Your task to perform on an android device: star an email in the gmail app Image 0: 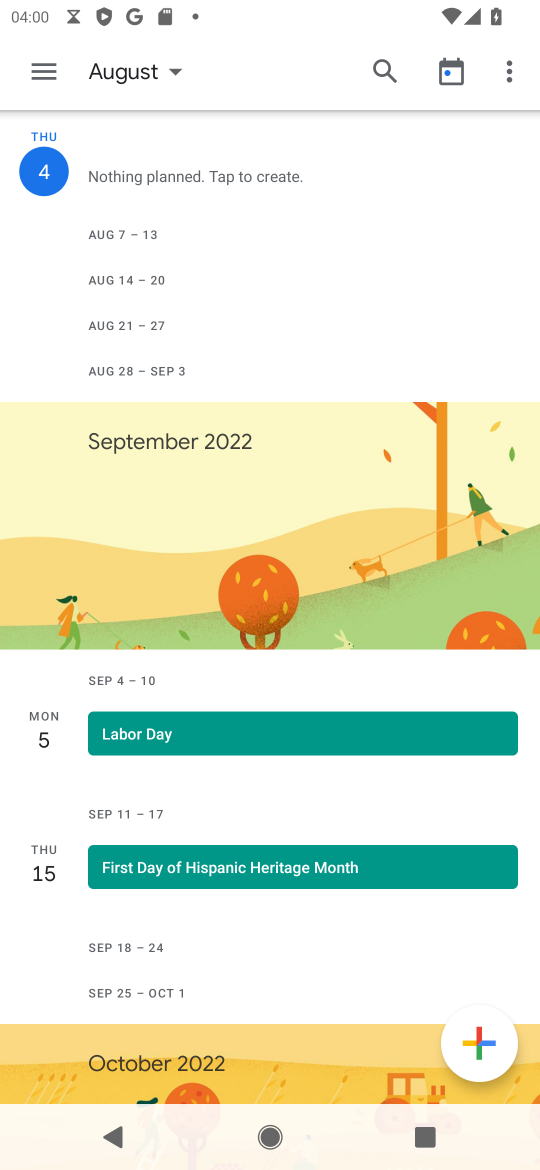
Step 0: press home button
Your task to perform on an android device: star an email in the gmail app Image 1: 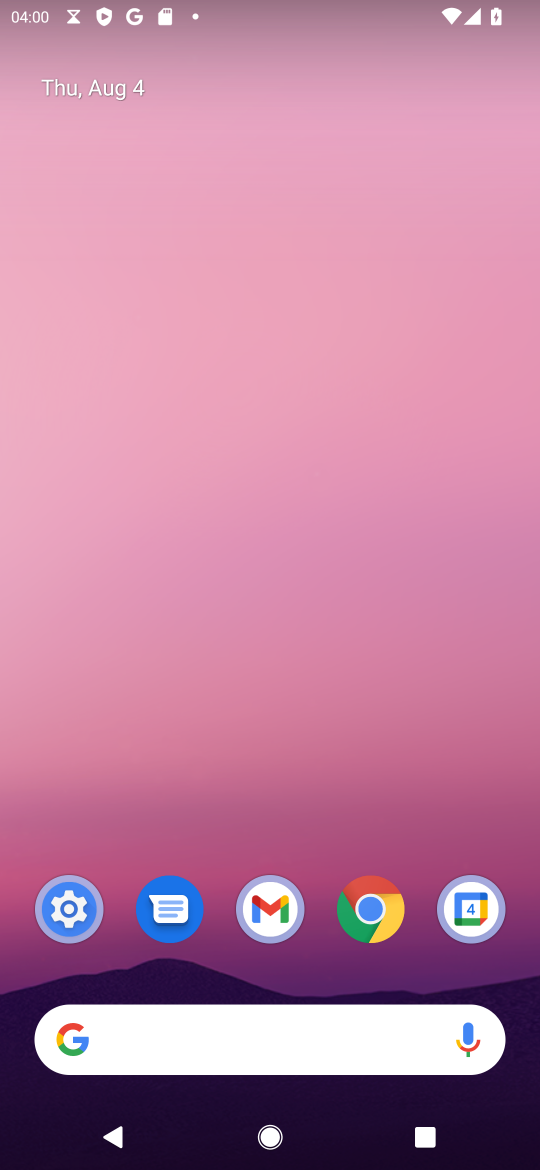
Step 1: drag from (211, 1039) to (463, 153)
Your task to perform on an android device: star an email in the gmail app Image 2: 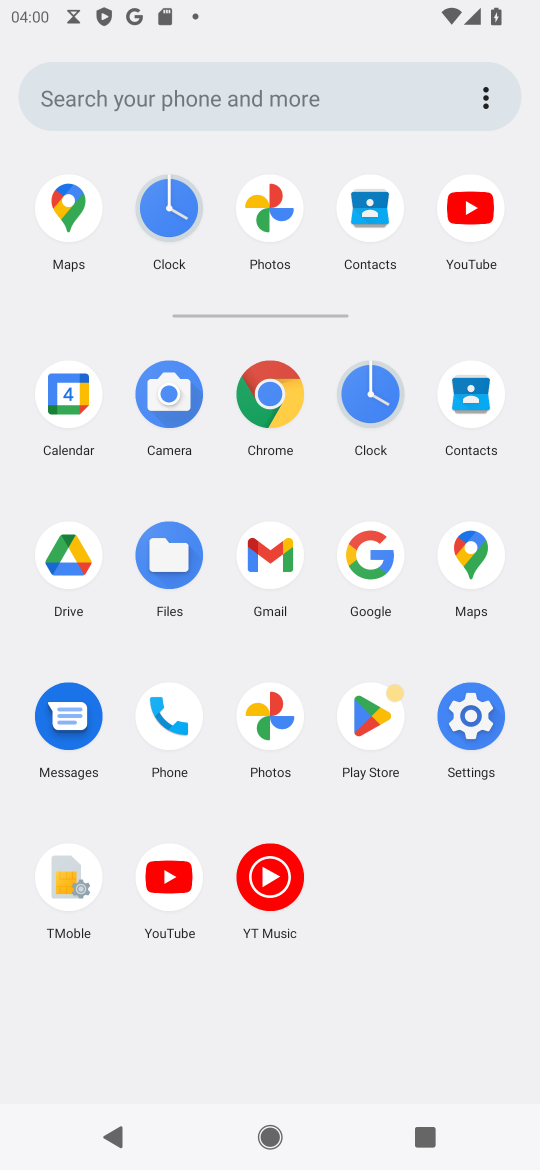
Step 2: click (260, 563)
Your task to perform on an android device: star an email in the gmail app Image 3: 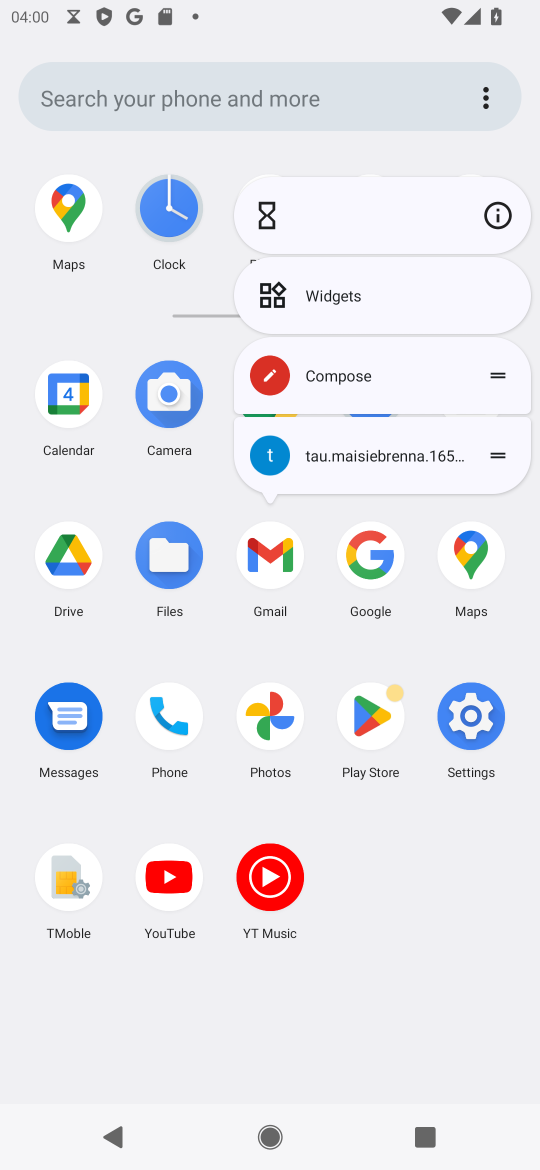
Step 3: click (272, 552)
Your task to perform on an android device: star an email in the gmail app Image 4: 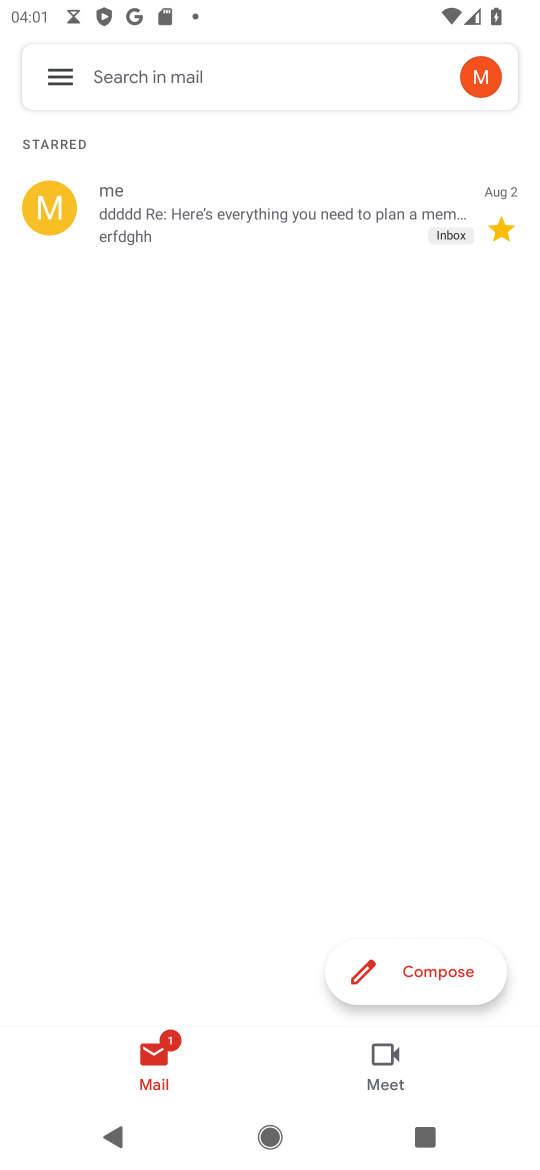
Step 4: click (49, 68)
Your task to perform on an android device: star an email in the gmail app Image 5: 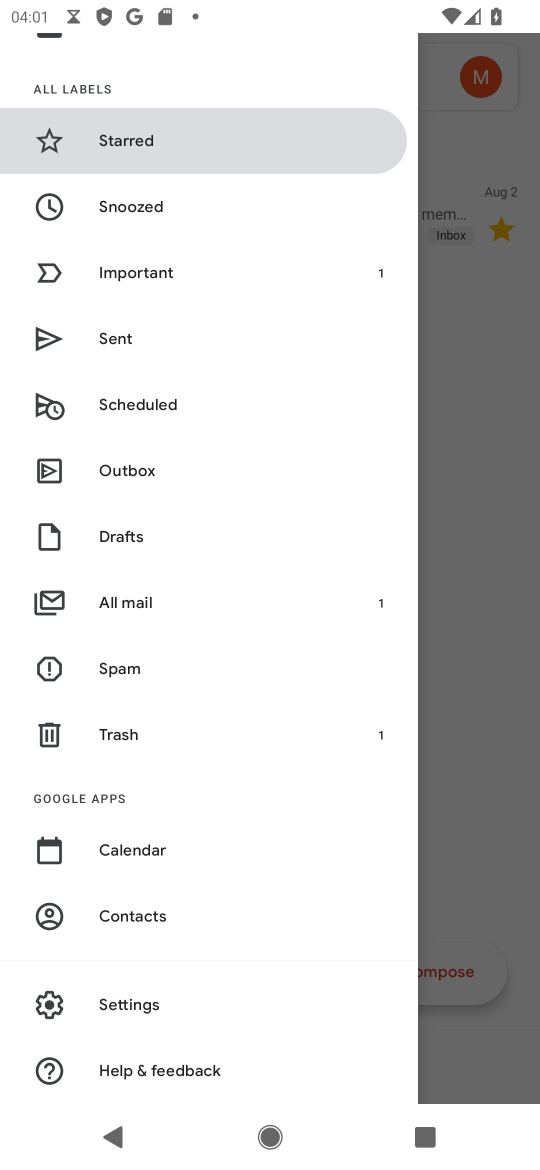
Step 5: click (163, 600)
Your task to perform on an android device: star an email in the gmail app Image 6: 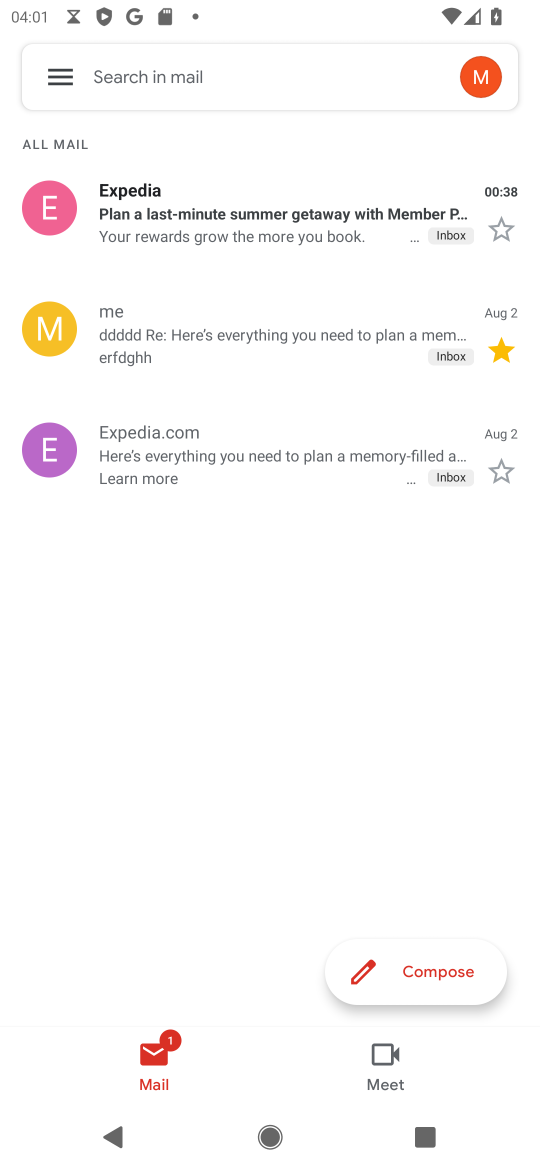
Step 6: click (45, 210)
Your task to perform on an android device: star an email in the gmail app Image 7: 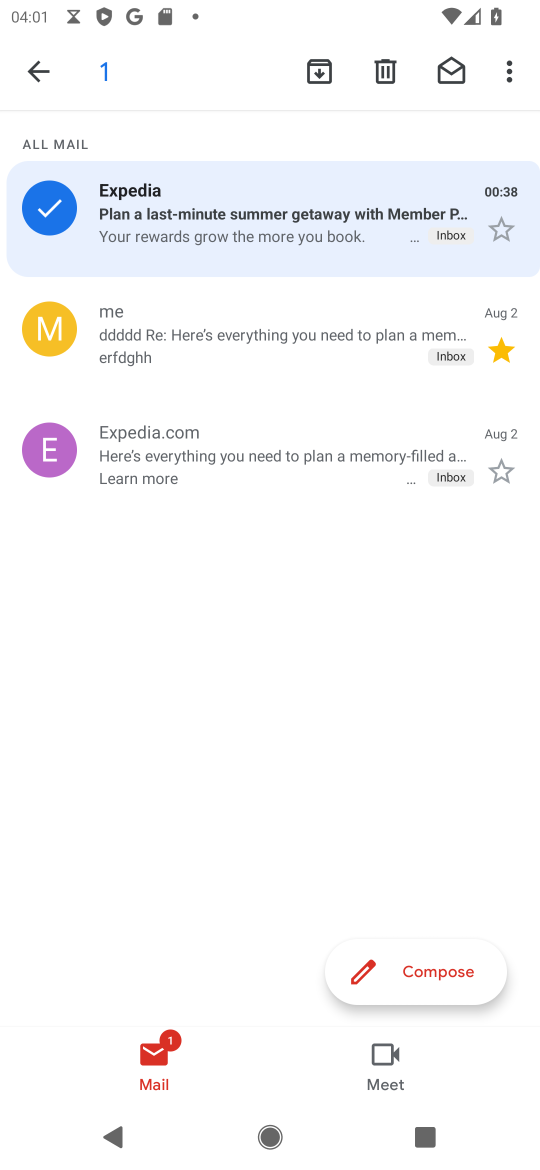
Step 7: click (510, 82)
Your task to perform on an android device: star an email in the gmail app Image 8: 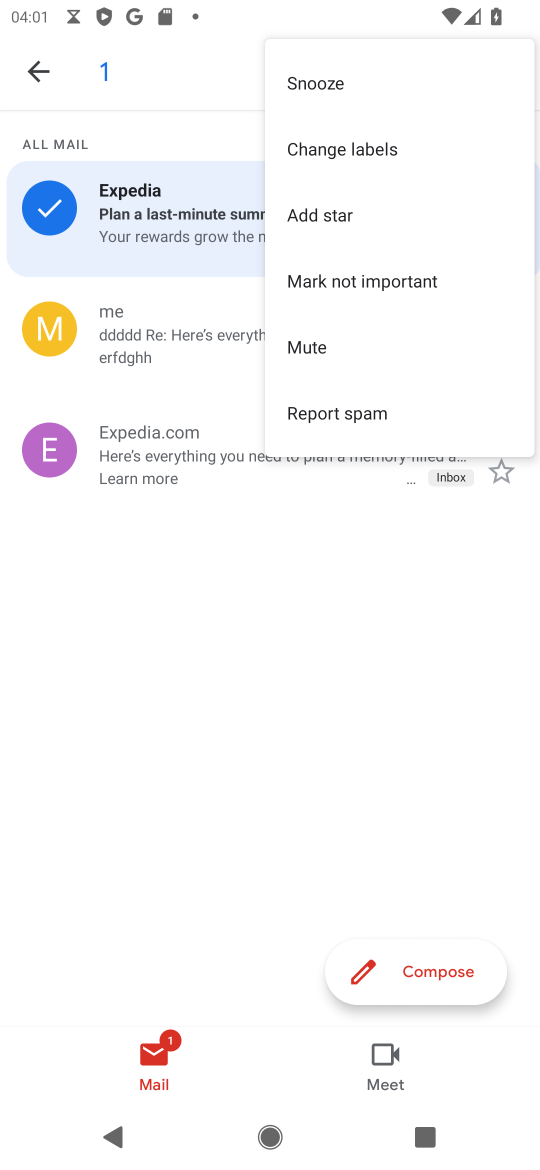
Step 8: click (352, 212)
Your task to perform on an android device: star an email in the gmail app Image 9: 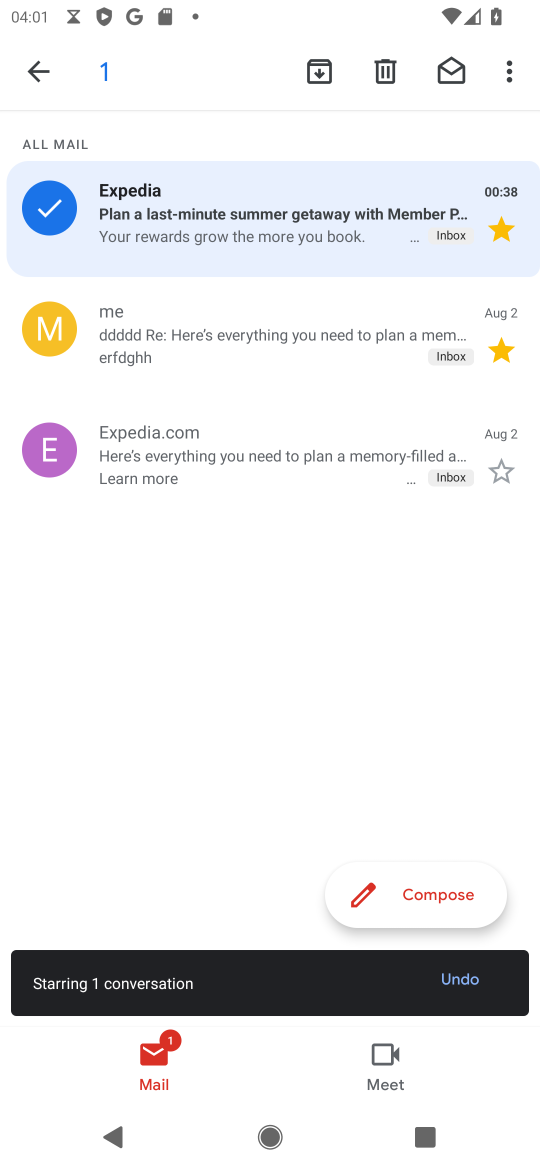
Step 9: task complete